Your task to perform on an android device: change timer sound Image 0: 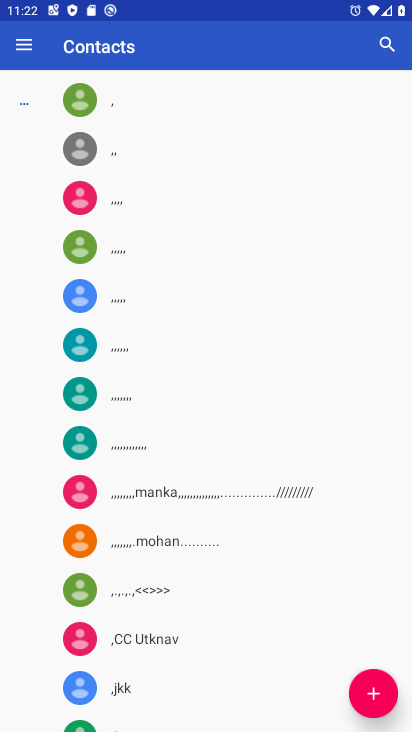
Step 0: press home button
Your task to perform on an android device: change timer sound Image 1: 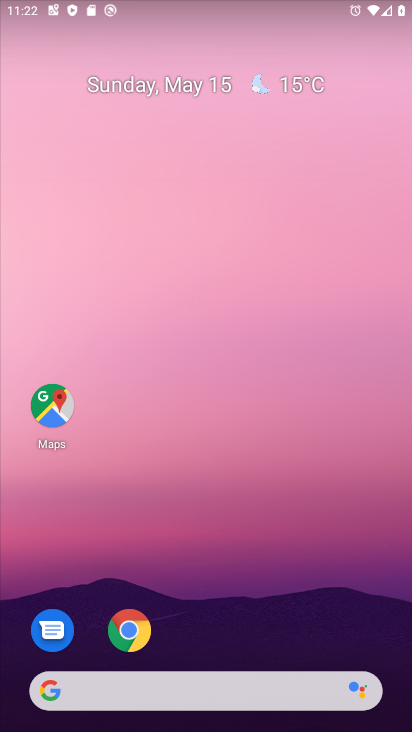
Step 1: drag from (234, 726) to (236, 153)
Your task to perform on an android device: change timer sound Image 2: 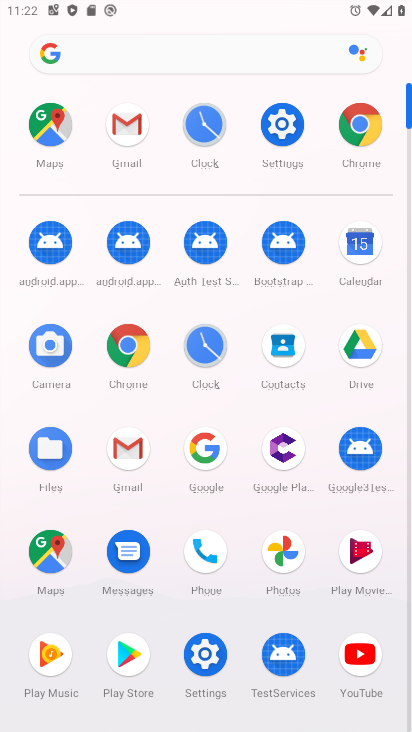
Step 2: click (205, 343)
Your task to perform on an android device: change timer sound Image 3: 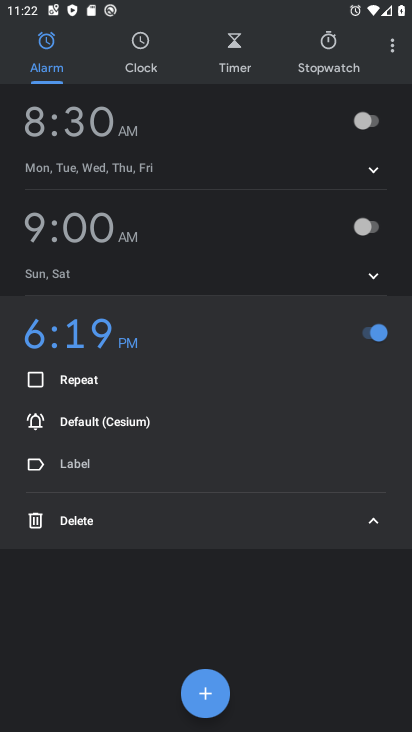
Step 3: click (395, 42)
Your task to perform on an android device: change timer sound Image 4: 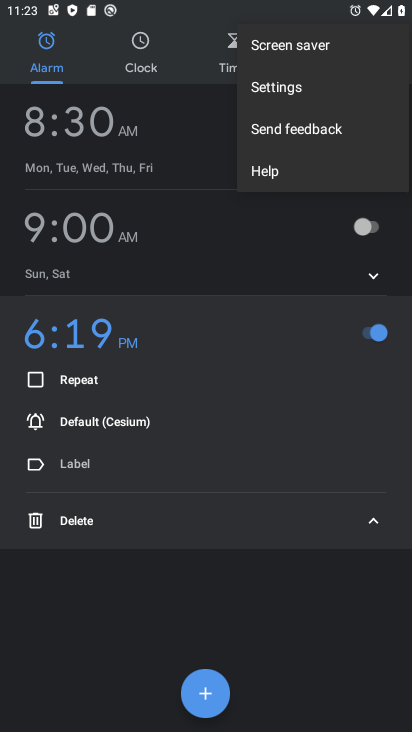
Step 4: click (285, 85)
Your task to perform on an android device: change timer sound Image 5: 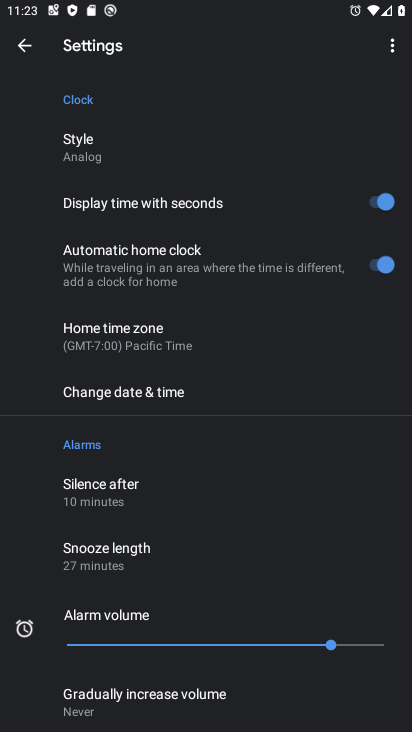
Step 5: drag from (201, 599) to (186, 341)
Your task to perform on an android device: change timer sound Image 6: 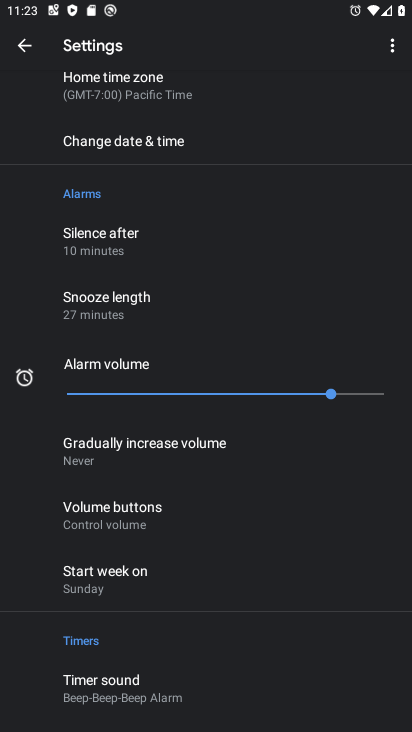
Step 6: drag from (162, 656) to (165, 327)
Your task to perform on an android device: change timer sound Image 7: 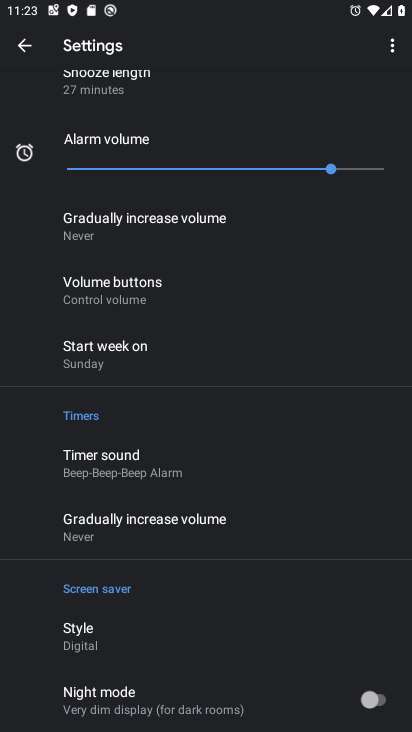
Step 7: click (131, 452)
Your task to perform on an android device: change timer sound Image 8: 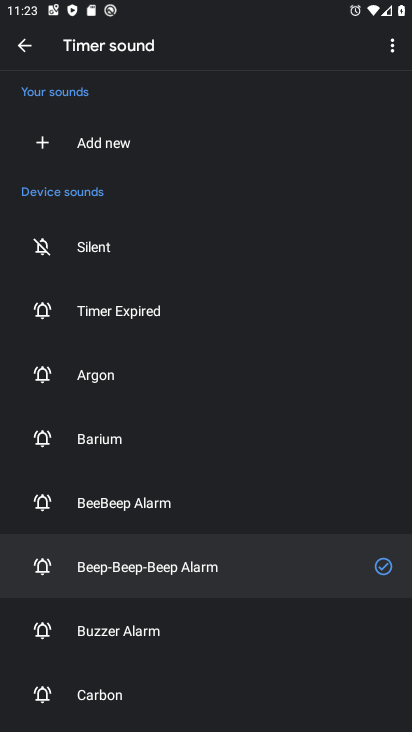
Step 8: click (46, 695)
Your task to perform on an android device: change timer sound Image 9: 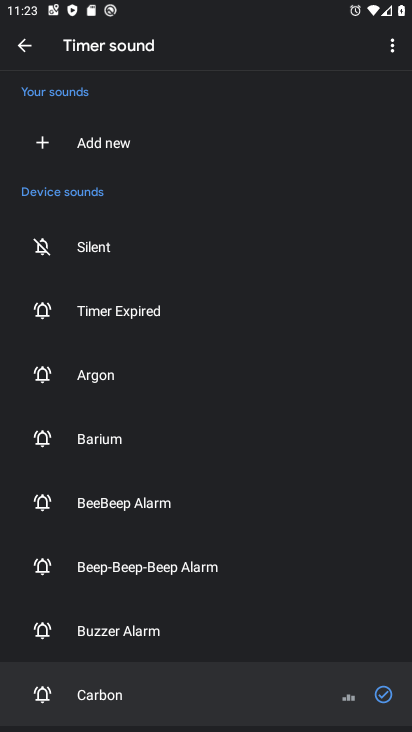
Step 9: task complete